Your task to perform on an android device: make emails show in primary in the gmail app Image 0: 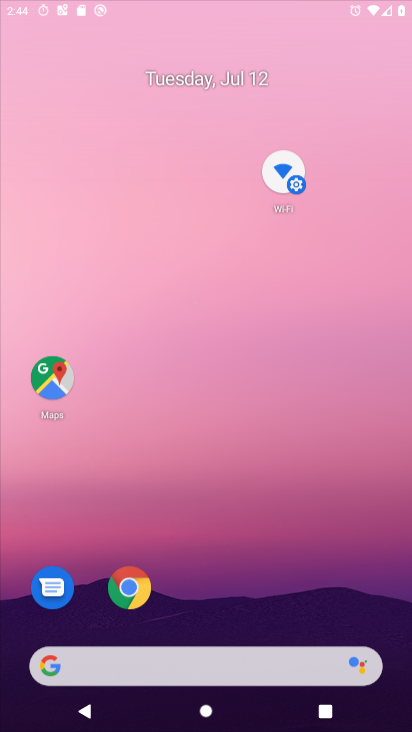
Step 0: click (389, 39)
Your task to perform on an android device: make emails show in primary in the gmail app Image 1: 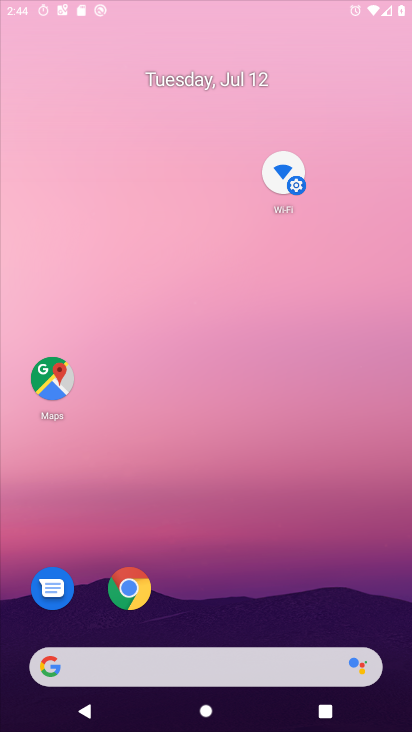
Step 1: drag from (192, 621) to (262, 103)
Your task to perform on an android device: make emails show in primary in the gmail app Image 2: 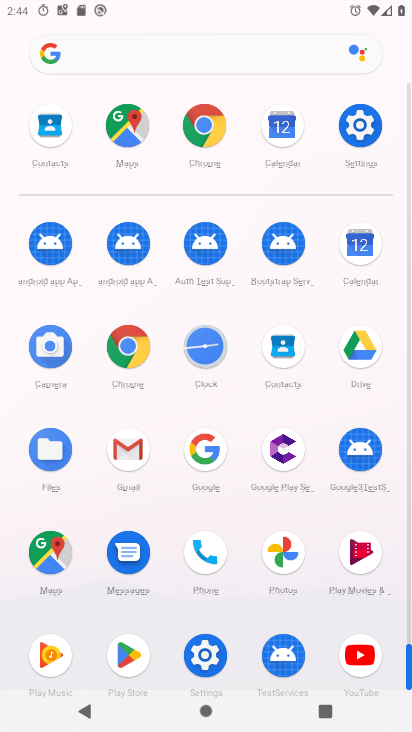
Step 2: click (132, 437)
Your task to perform on an android device: make emails show in primary in the gmail app Image 3: 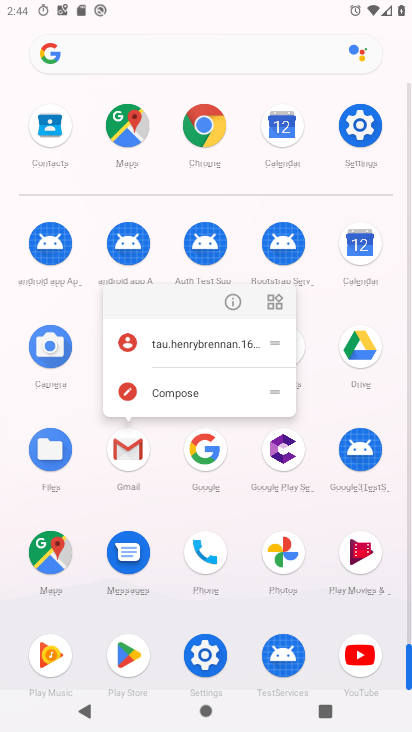
Step 3: click (224, 305)
Your task to perform on an android device: make emails show in primary in the gmail app Image 4: 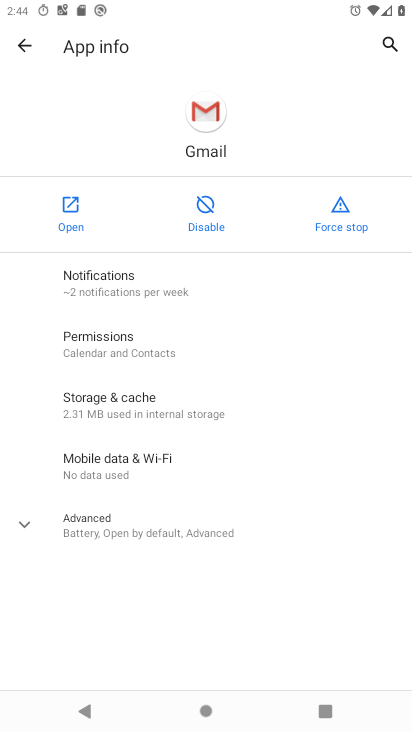
Step 4: click (57, 219)
Your task to perform on an android device: make emails show in primary in the gmail app Image 5: 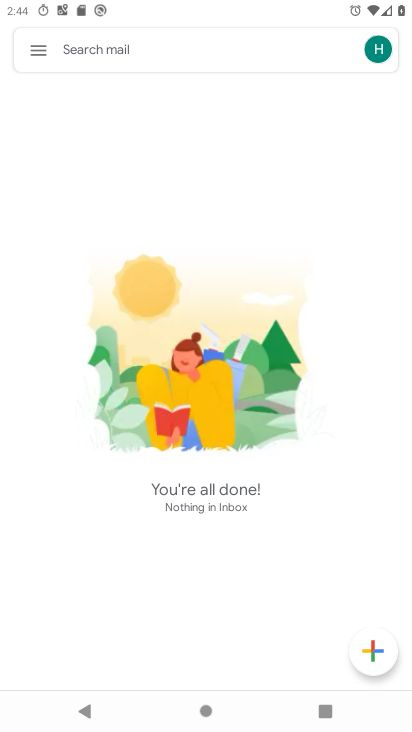
Step 5: click (38, 43)
Your task to perform on an android device: make emails show in primary in the gmail app Image 6: 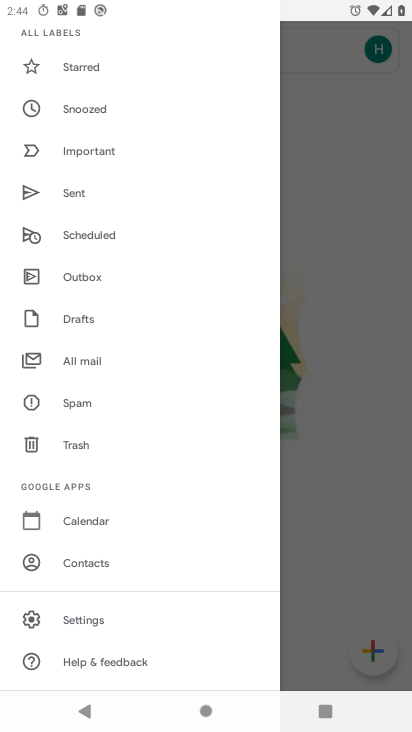
Step 6: drag from (108, 149) to (253, 717)
Your task to perform on an android device: make emails show in primary in the gmail app Image 7: 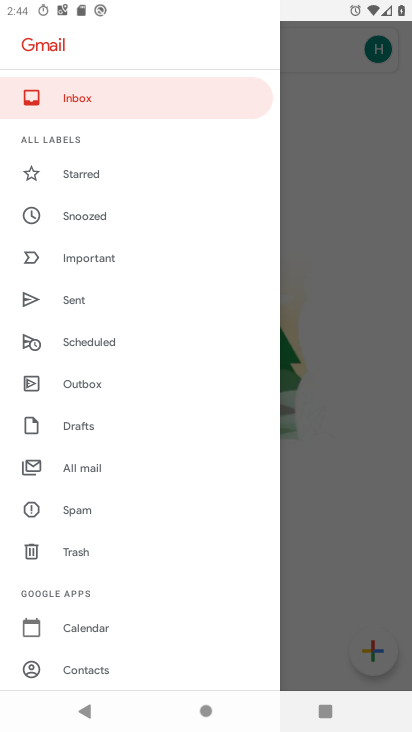
Step 7: drag from (93, 122) to (169, 651)
Your task to perform on an android device: make emails show in primary in the gmail app Image 8: 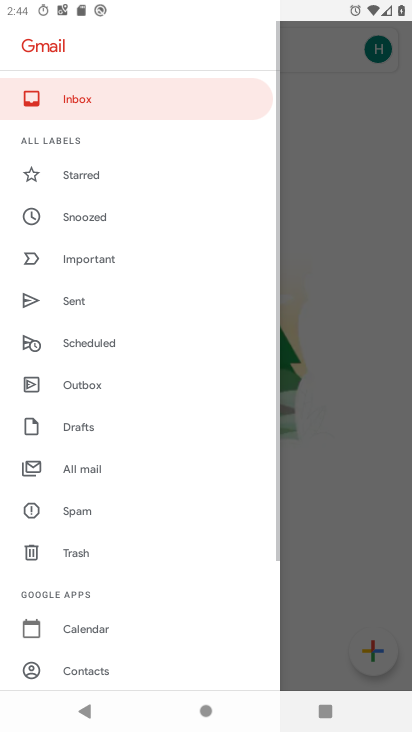
Step 8: click (93, 89)
Your task to perform on an android device: make emails show in primary in the gmail app Image 9: 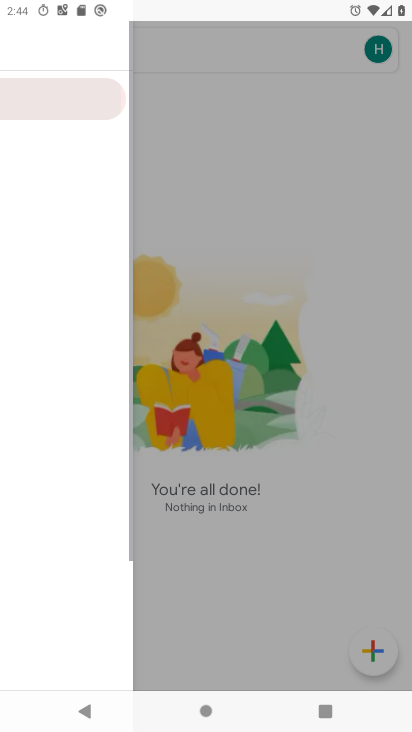
Step 9: click (336, 150)
Your task to perform on an android device: make emails show in primary in the gmail app Image 10: 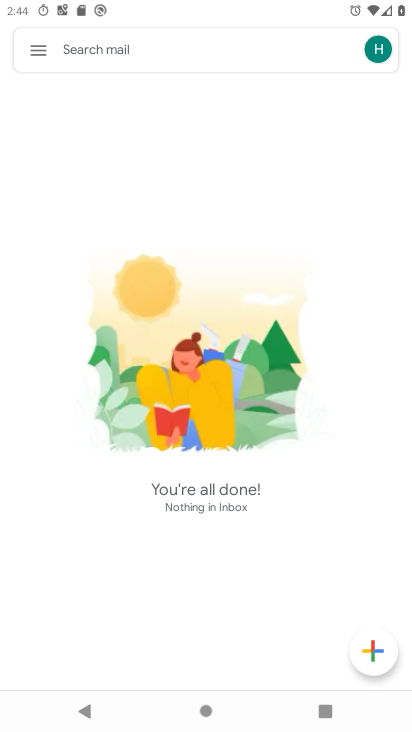
Step 10: click (257, 344)
Your task to perform on an android device: make emails show in primary in the gmail app Image 11: 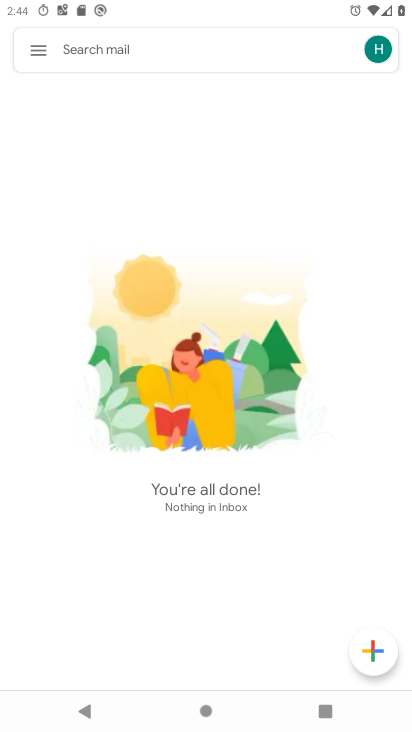
Step 11: task complete